Your task to perform on an android device: change your default location settings in chrome Image 0: 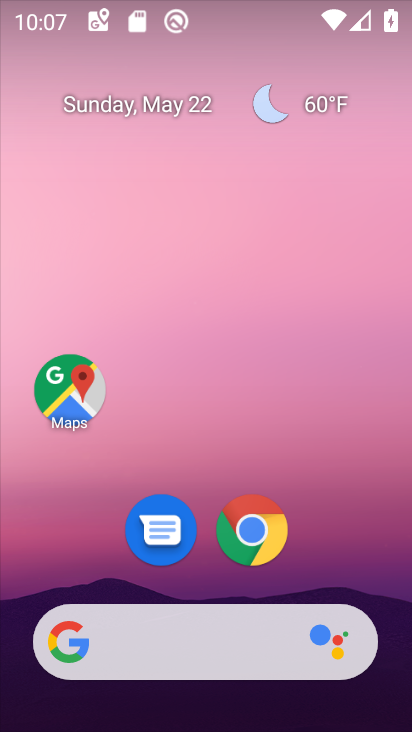
Step 0: click (264, 532)
Your task to perform on an android device: change your default location settings in chrome Image 1: 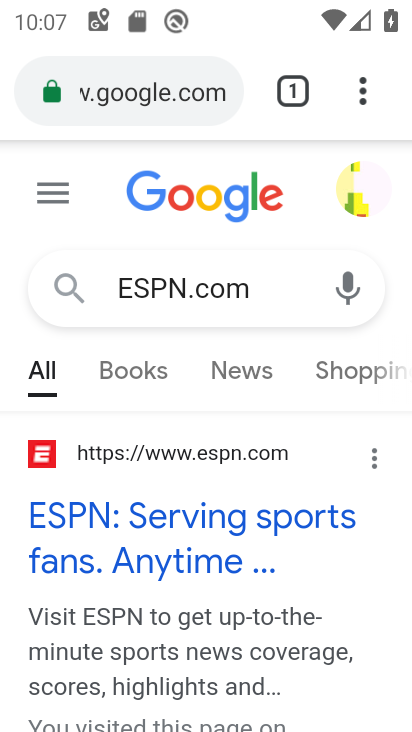
Step 1: click (363, 88)
Your task to perform on an android device: change your default location settings in chrome Image 2: 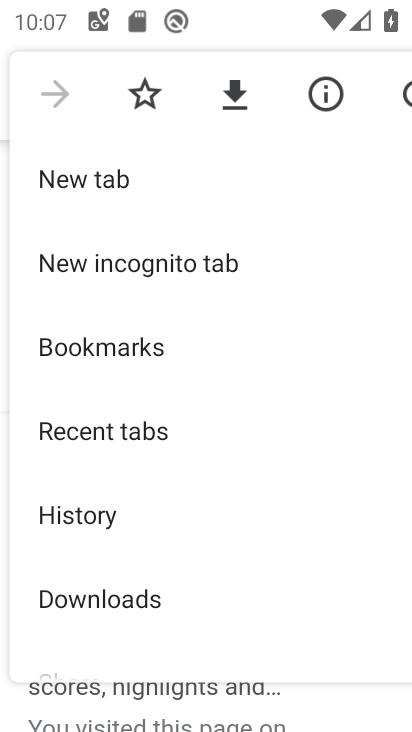
Step 2: drag from (210, 638) to (205, 356)
Your task to perform on an android device: change your default location settings in chrome Image 3: 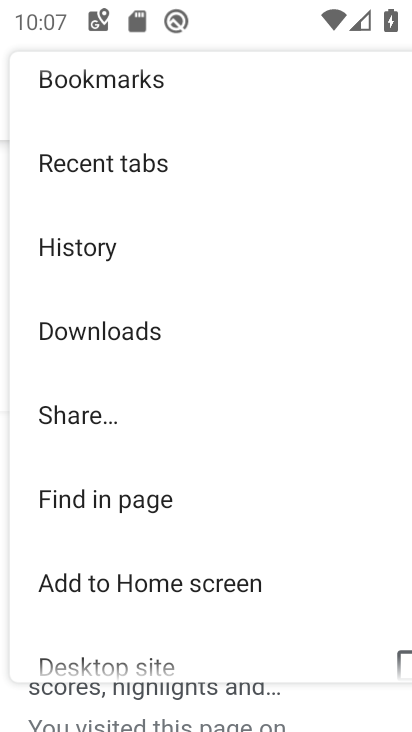
Step 3: drag from (309, 559) to (282, 325)
Your task to perform on an android device: change your default location settings in chrome Image 4: 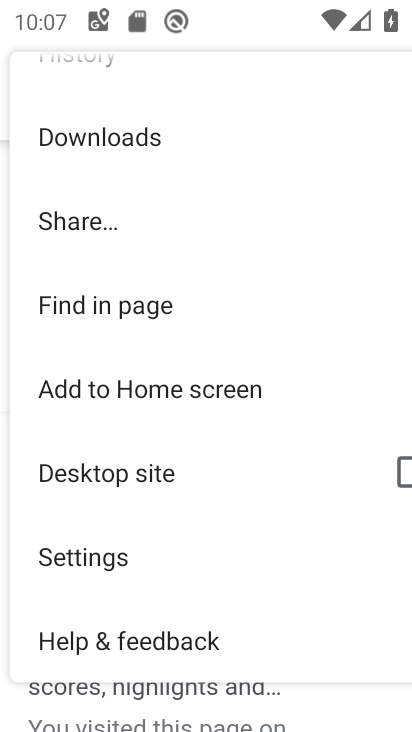
Step 4: click (87, 561)
Your task to perform on an android device: change your default location settings in chrome Image 5: 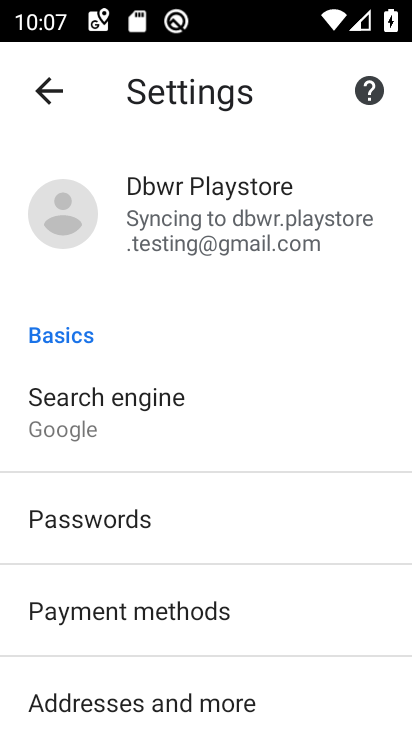
Step 5: click (82, 418)
Your task to perform on an android device: change your default location settings in chrome Image 6: 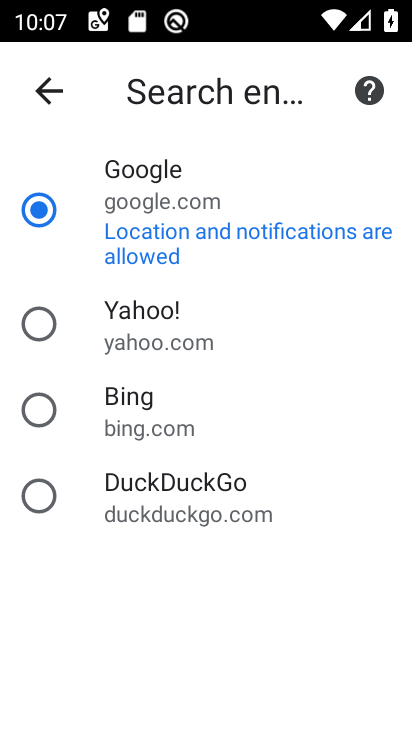
Step 6: click (42, 83)
Your task to perform on an android device: change your default location settings in chrome Image 7: 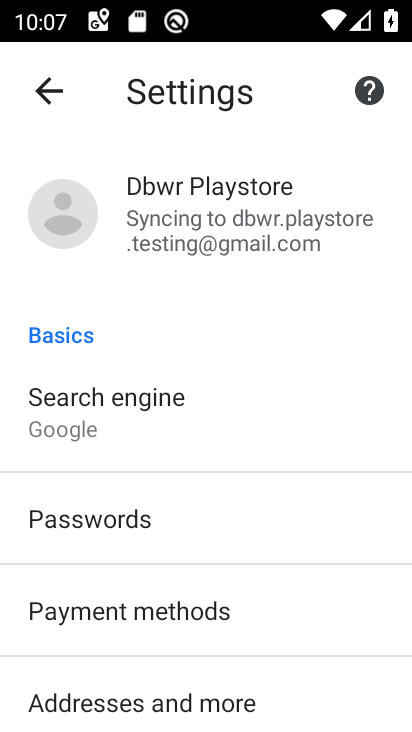
Step 7: drag from (278, 713) to (250, 414)
Your task to perform on an android device: change your default location settings in chrome Image 8: 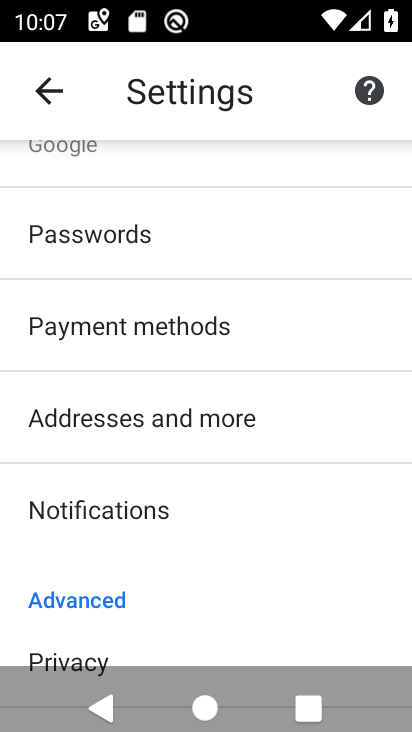
Step 8: drag from (258, 685) to (238, 417)
Your task to perform on an android device: change your default location settings in chrome Image 9: 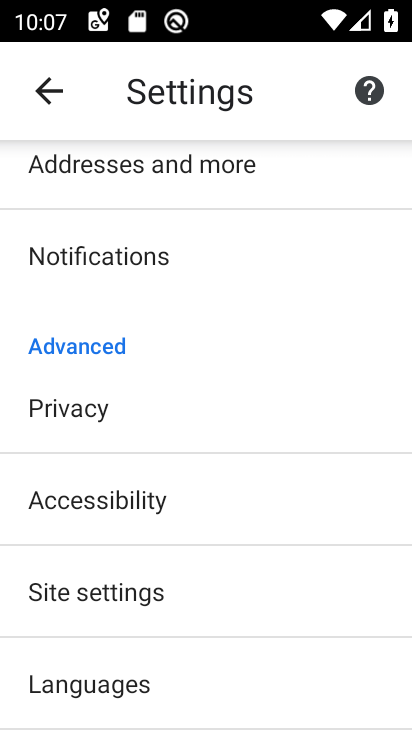
Step 9: click (101, 590)
Your task to perform on an android device: change your default location settings in chrome Image 10: 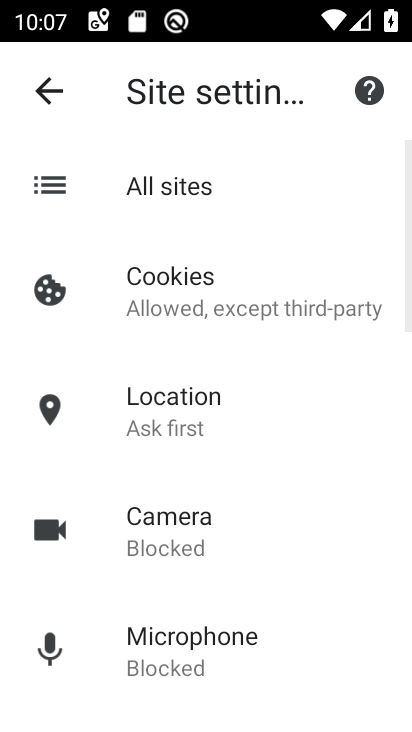
Step 10: click (147, 407)
Your task to perform on an android device: change your default location settings in chrome Image 11: 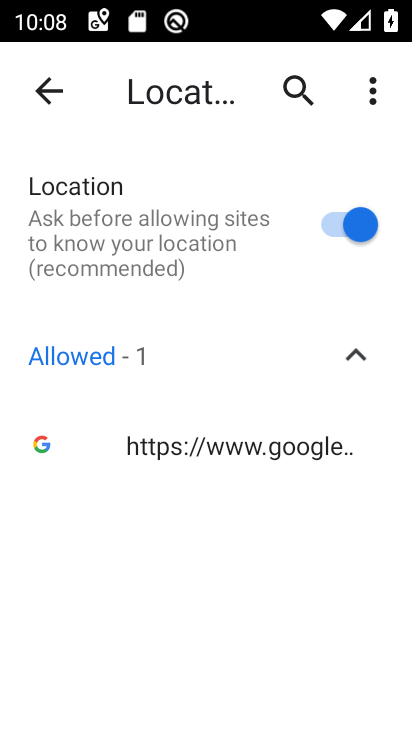
Step 11: task complete